Your task to perform on an android device: Open Chrome and go to settings Image 0: 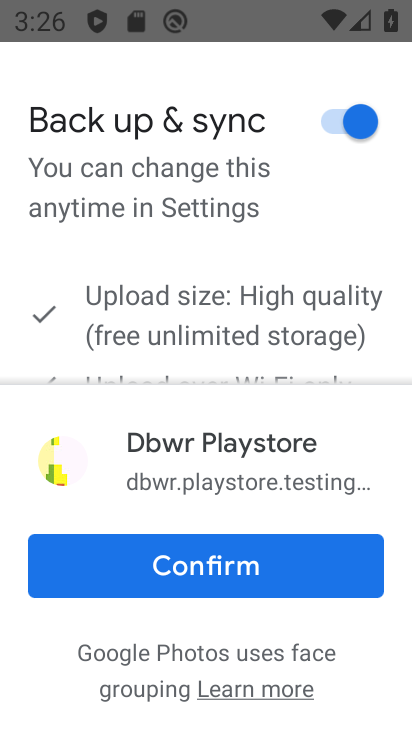
Step 0: press home button
Your task to perform on an android device: Open Chrome and go to settings Image 1: 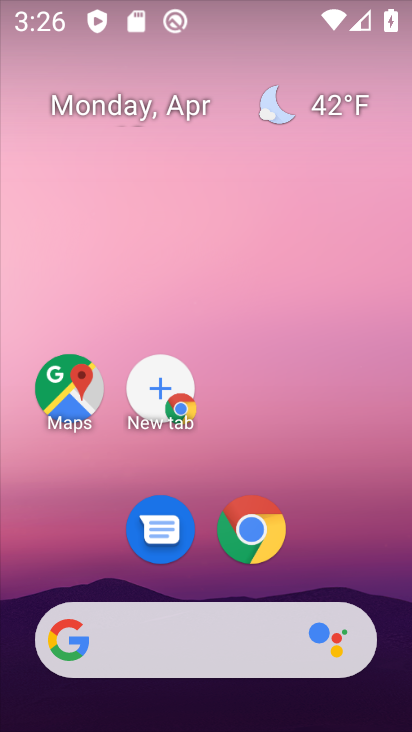
Step 1: click (252, 519)
Your task to perform on an android device: Open Chrome and go to settings Image 2: 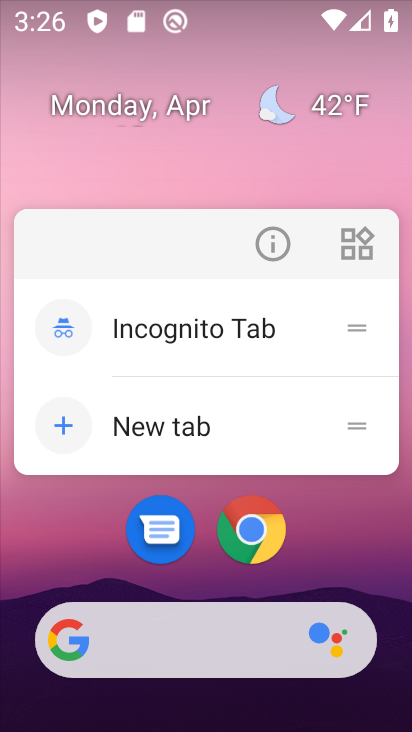
Step 2: click (254, 526)
Your task to perform on an android device: Open Chrome and go to settings Image 3: 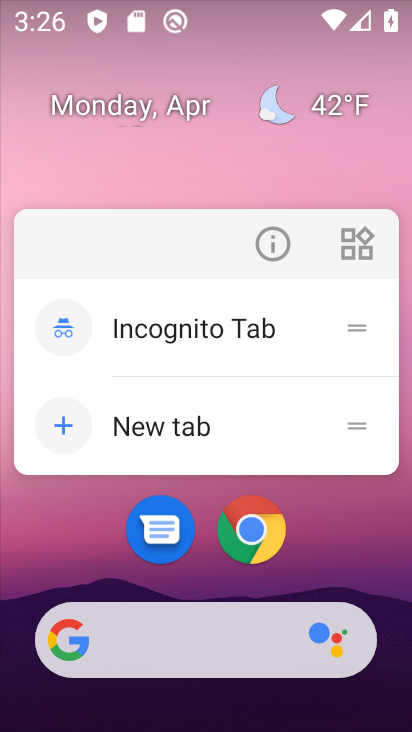
Step 3: click (259, 516)
Your task to perform on an android device: Open Chrome and go to settings Image 4: 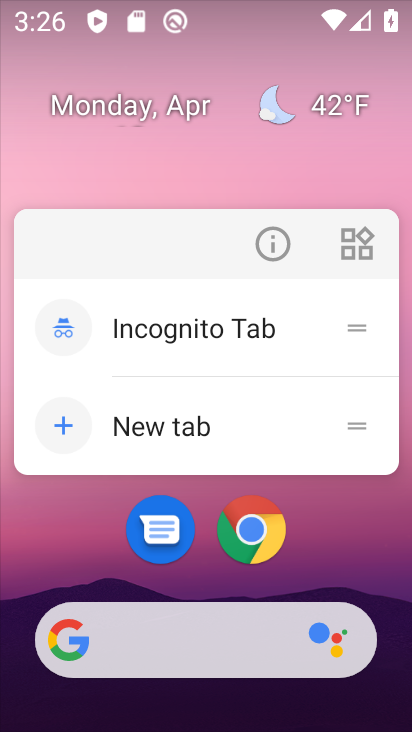
Step 4: click (245, 524)
Your task to perform on an android device: Open Chrome and go to settings Image 5: 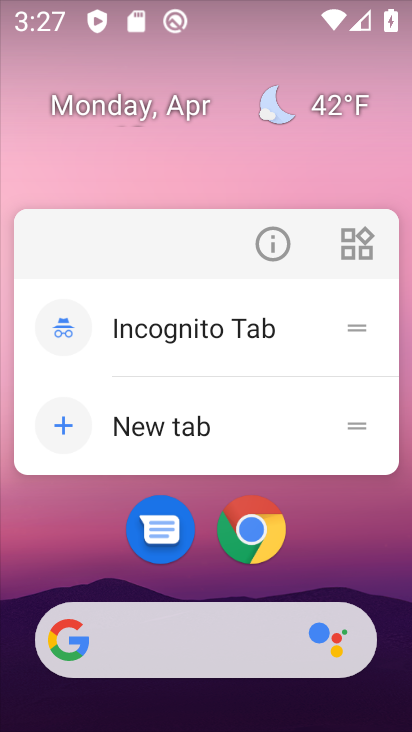
Step 5: click (244, 528)
Your task to perform on an android device: Open Chrome and go to settings Image 6: 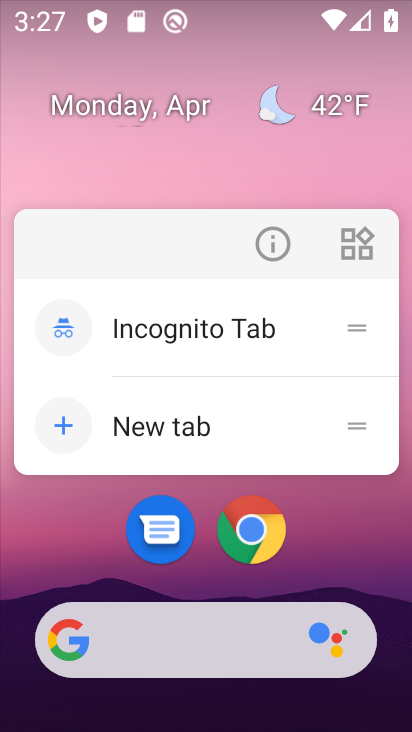
Step 6: click (251, 524)
Your task to perform on an android device: Open Chrome and go to settings Image 7: 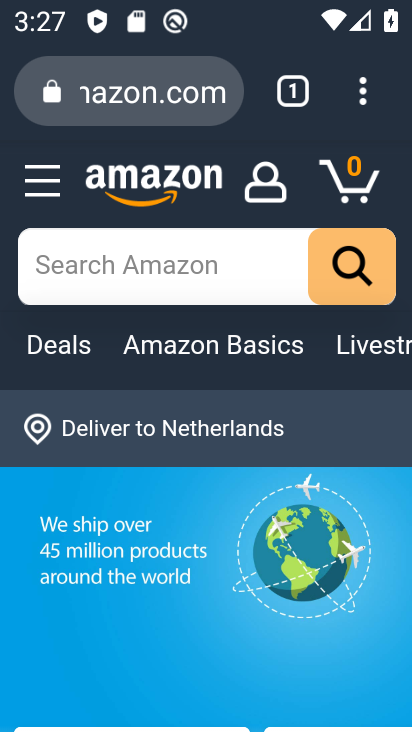
Step 7: task complete